Your task to perform on an android device: Do I have any events this weekend? Image 0: 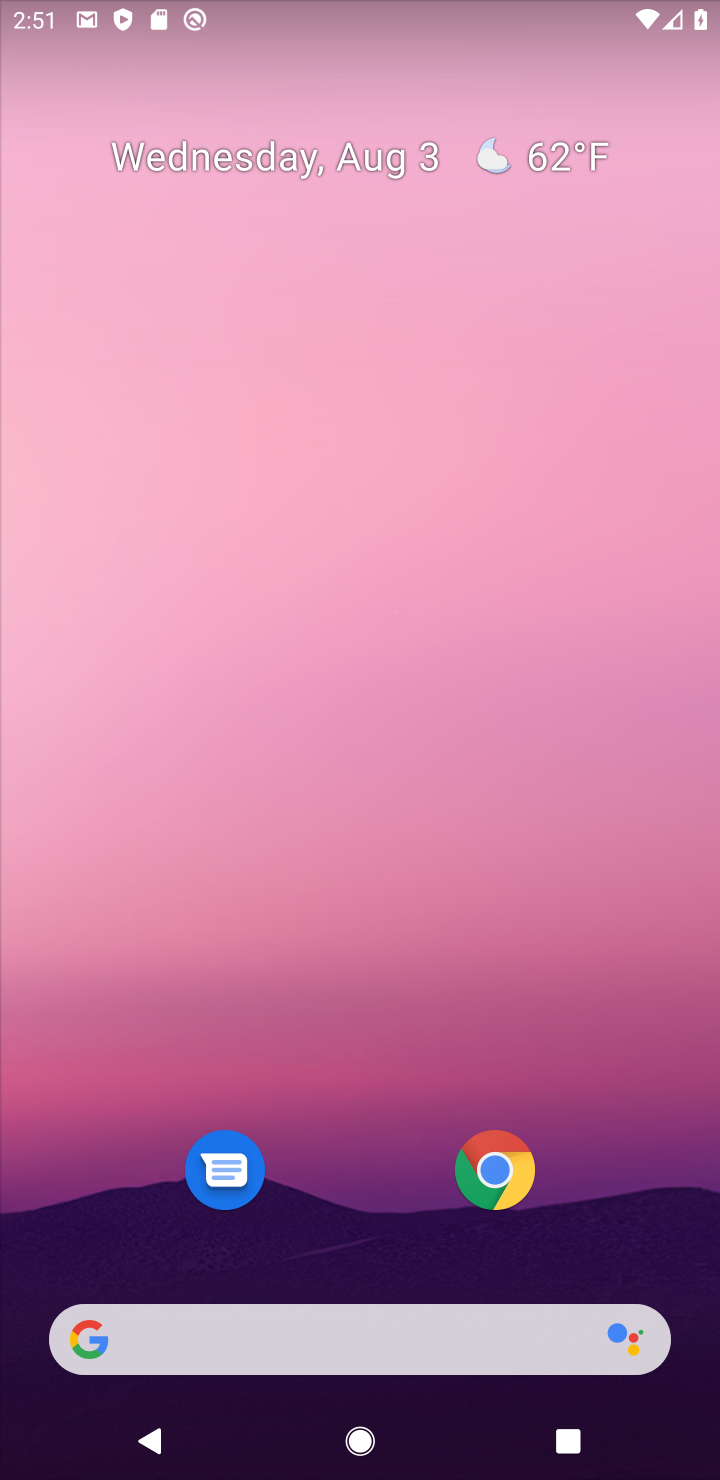
Step 0: drag from (325, 1236) to (325, 373)
Your task to perform on an android device: Do I have any events this weekend? Image 1: 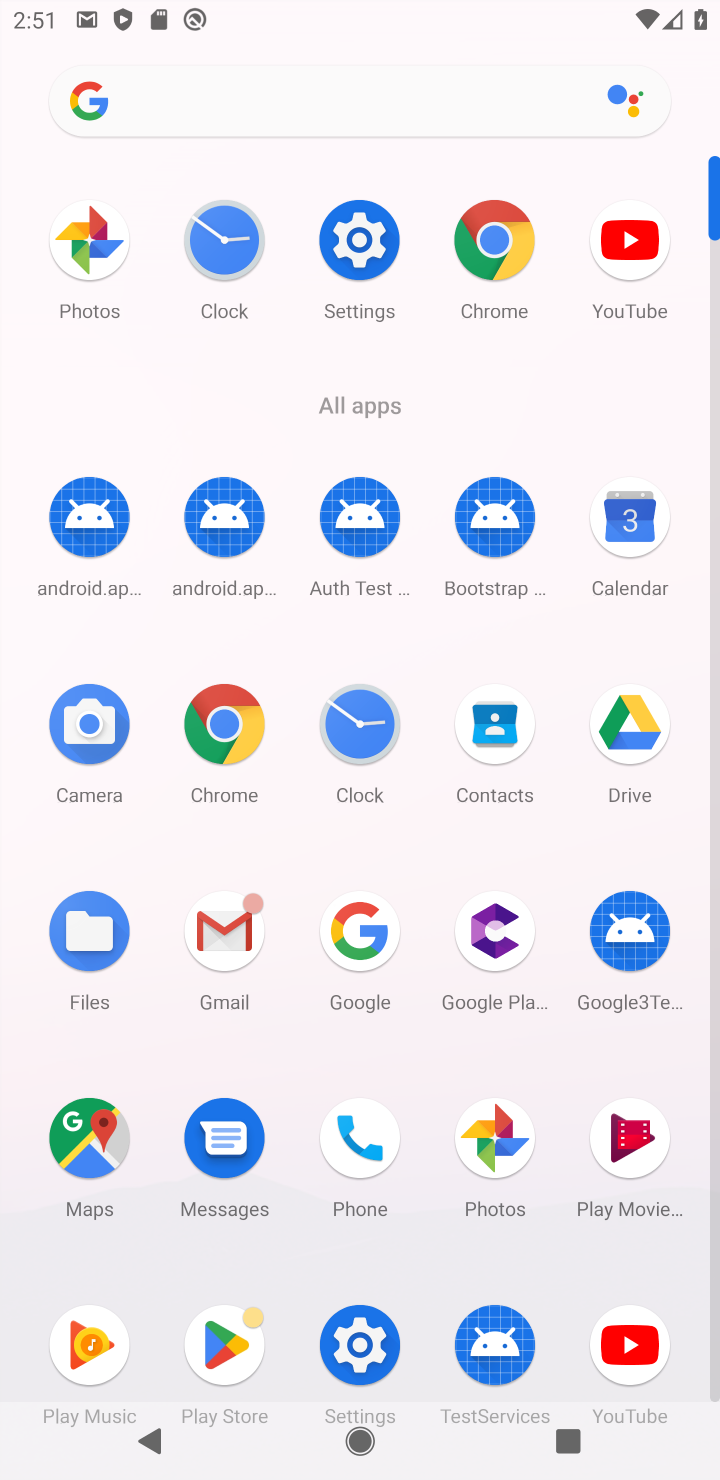
Step 1: click (619, 554)
Your task to perform on an android device: Do I have any events this weekend? Image 2: 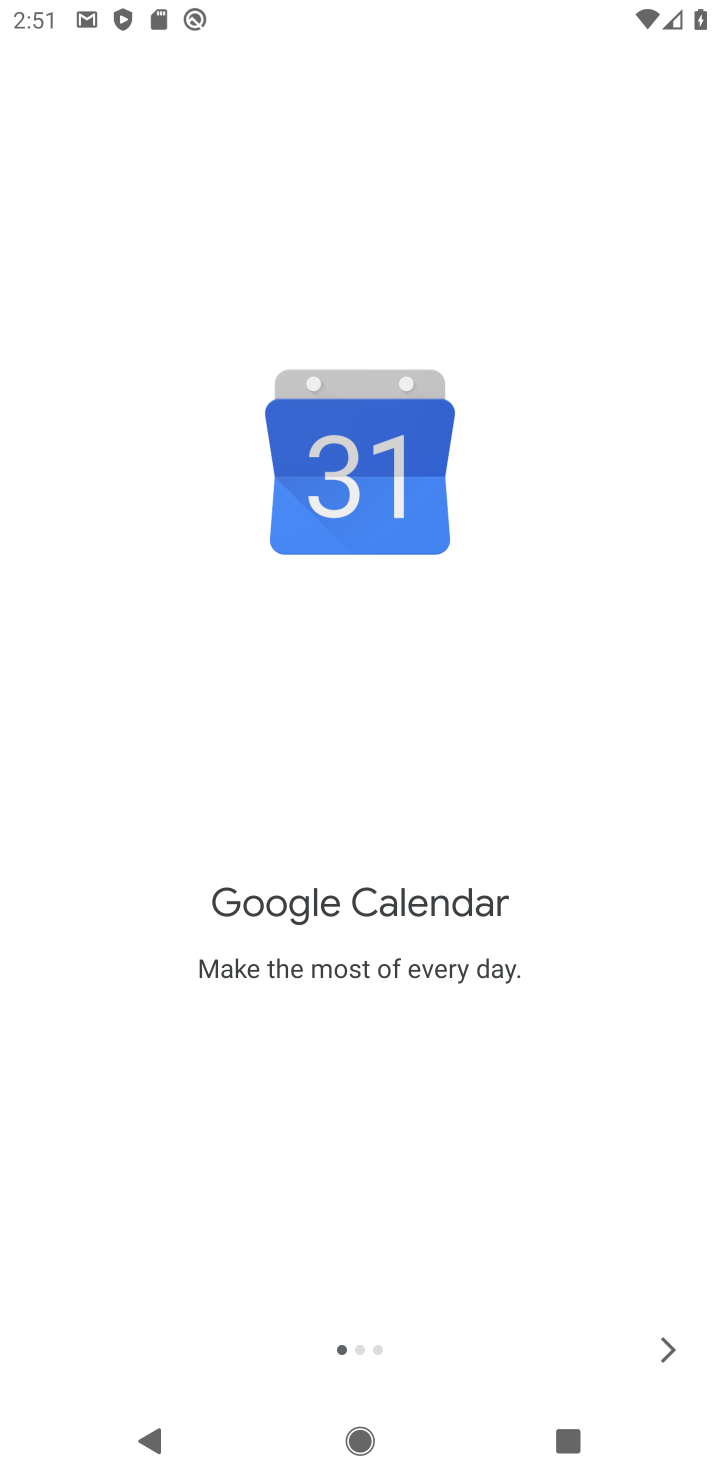
Step 2: click (627, 582)
Your task to perform on an android device: Do I have any events this weekend? Image 3: 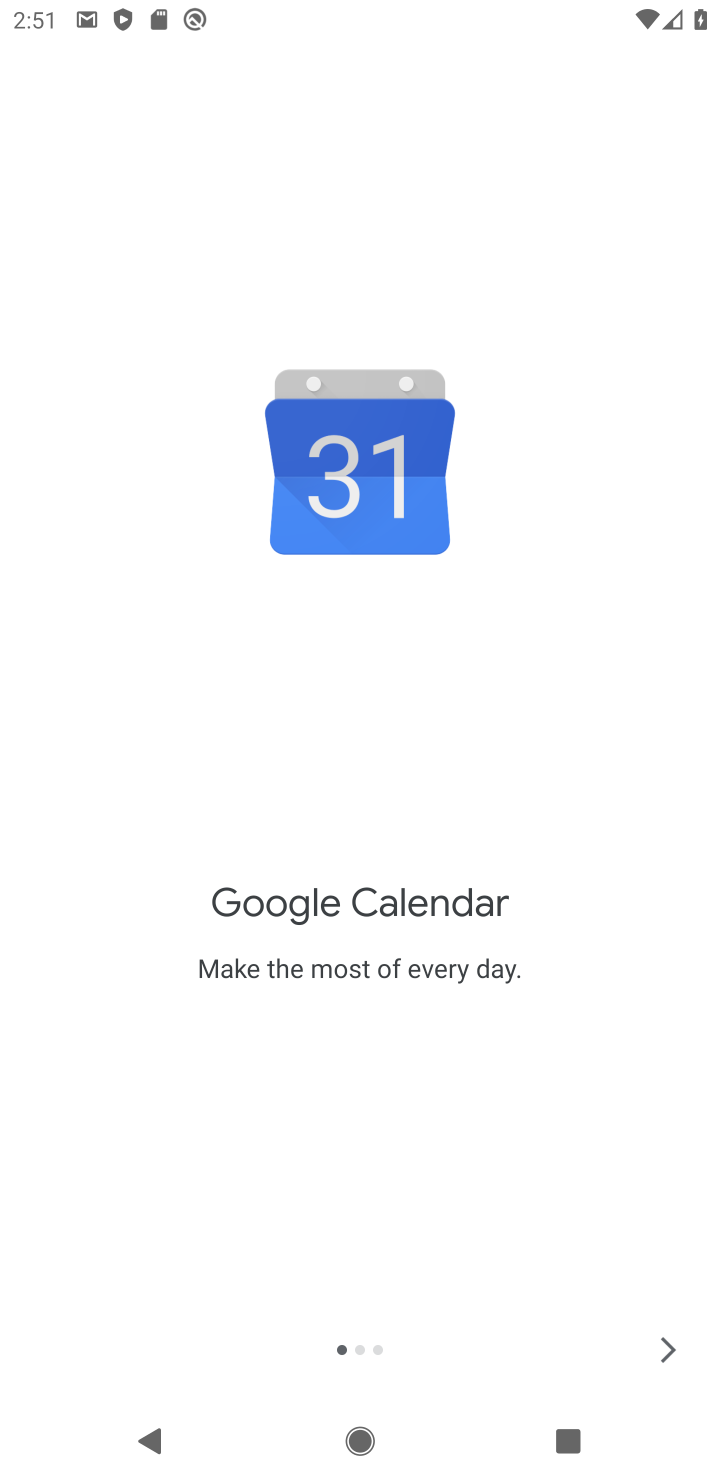
Step 3: click (680, 1368)
Your task to perform on an android device: Do I have any events this weekend? Image 4: 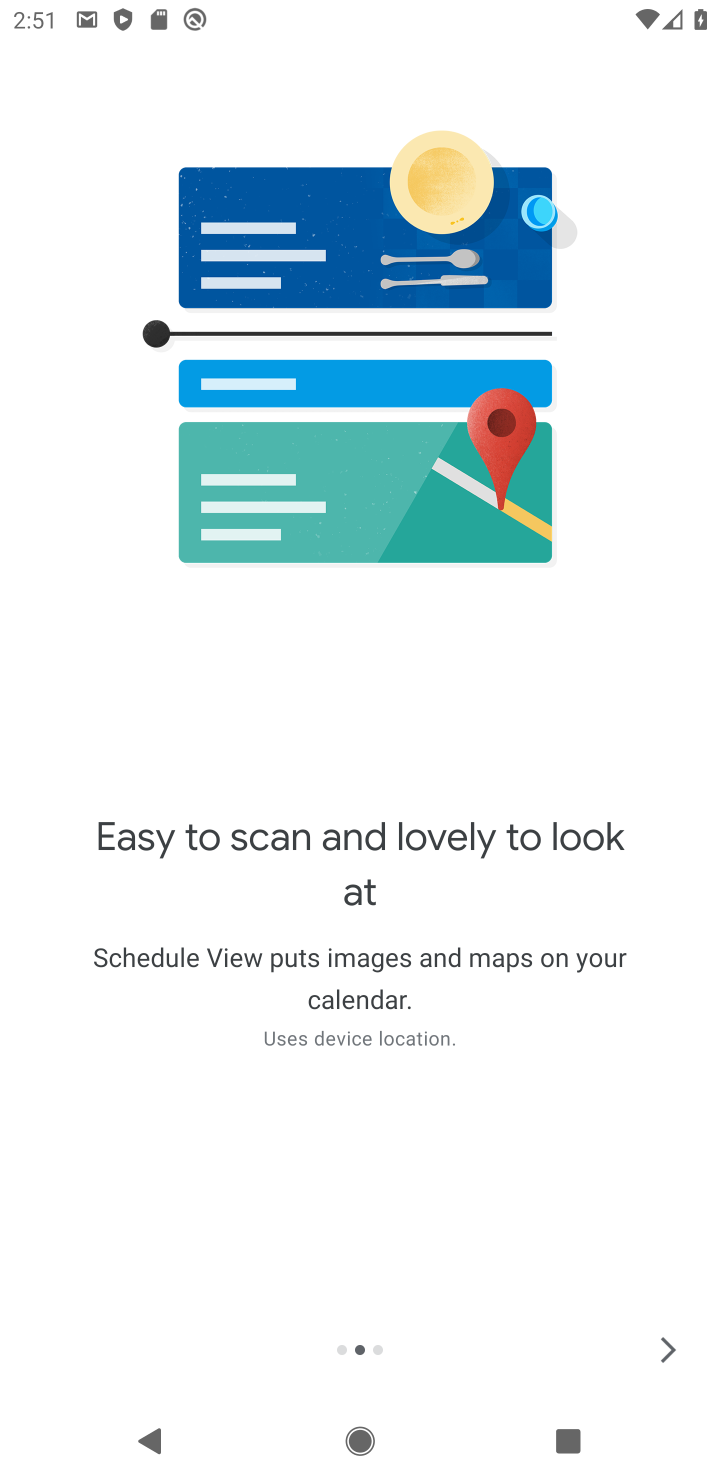
Step 4: click (675, 1363)
Your task to perform on an android device: Do I have any events this weekend? Image 5: 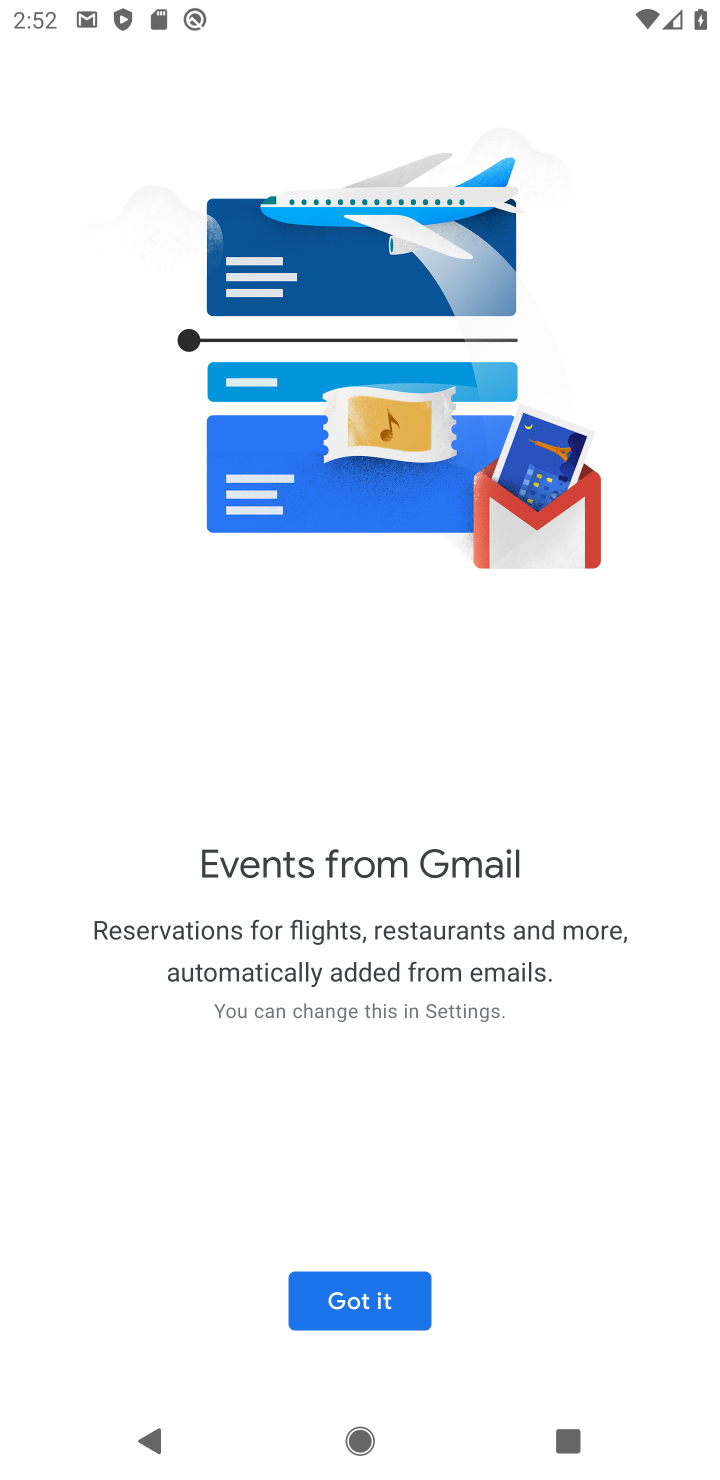
Step 5: click (391, 1296)
Your task to perform on an android device: Do I have any events this weekend? Image 6: 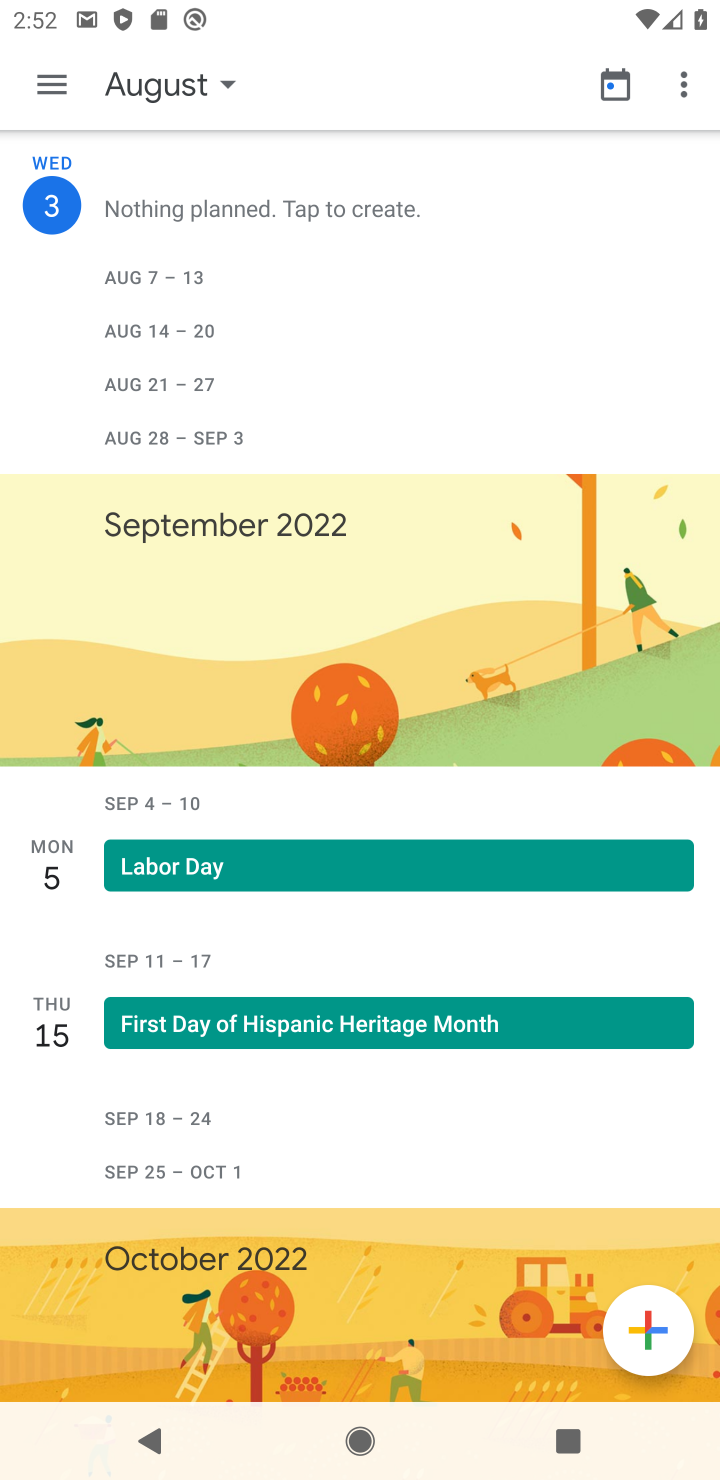
Step 6: click (47, 82)
Your task to perform on an android device: Do I have any events this weekend? Image 7: 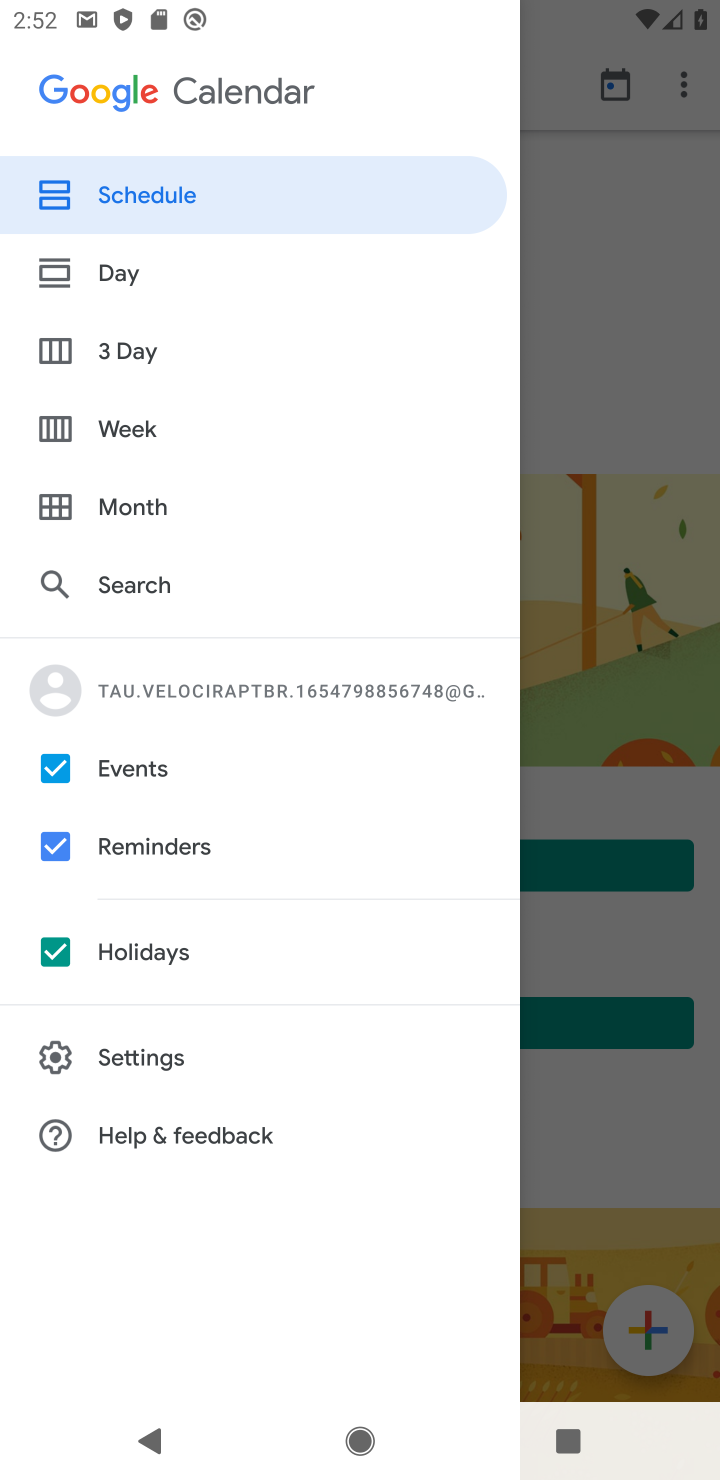
Step 7: click (130, 433)
Your task to perform on an android device: Do I have any events this weekend? Image 8: 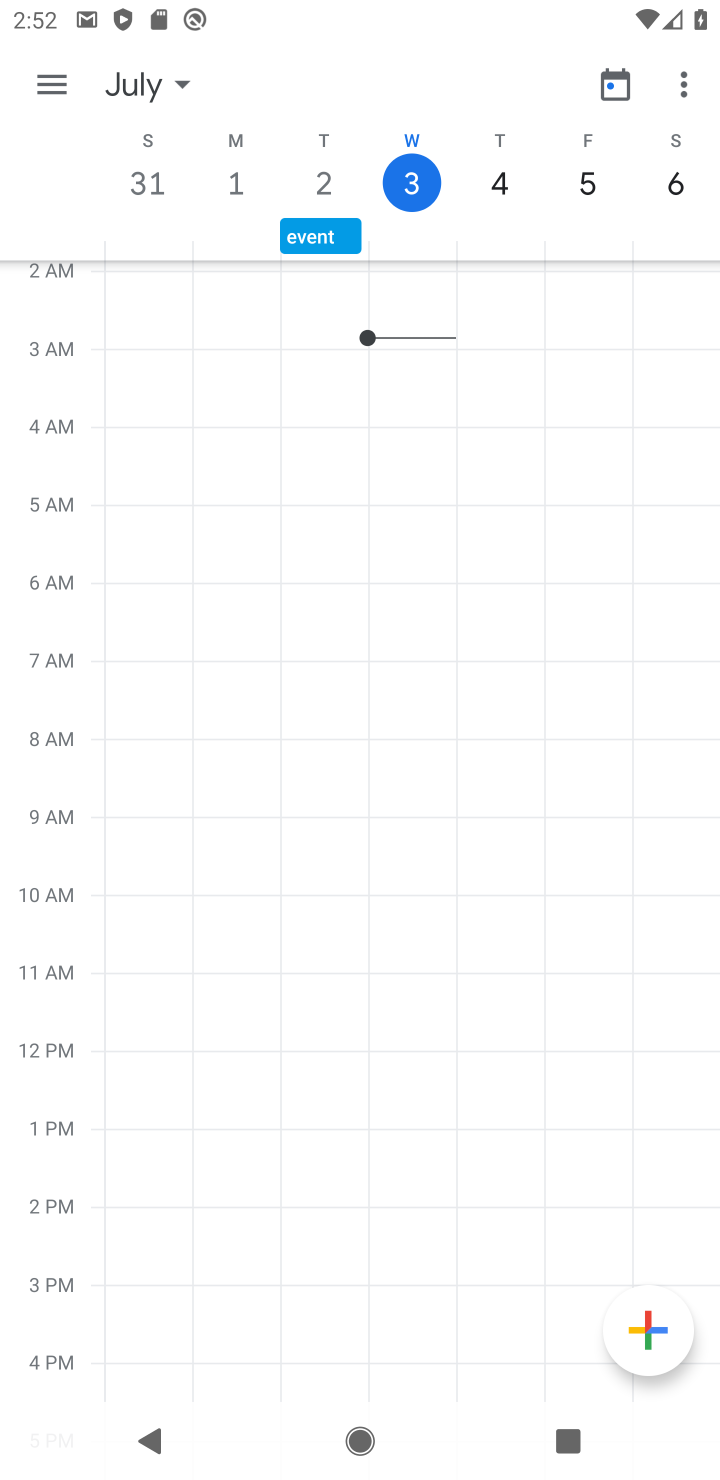
Step 8: task complete